Your task to perform on an android device: open a bookmark in the chrome app Image 0: 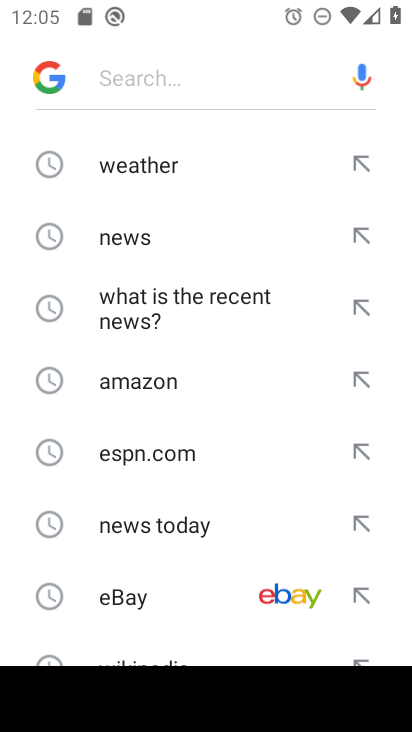
Step 0: press home button
Your task to perform on an android device: open a bookmark in the chrome app Image 1: 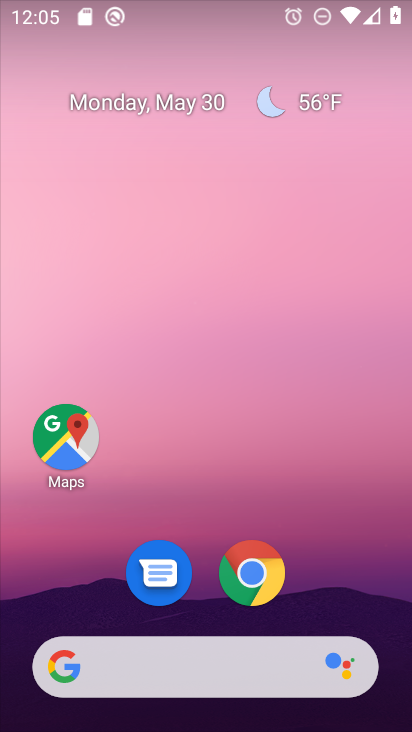
Step 1: drag from (357, 623) to (310, 3)
Your task to perform on an android device: open a bookmark in the chrome app Image 2: 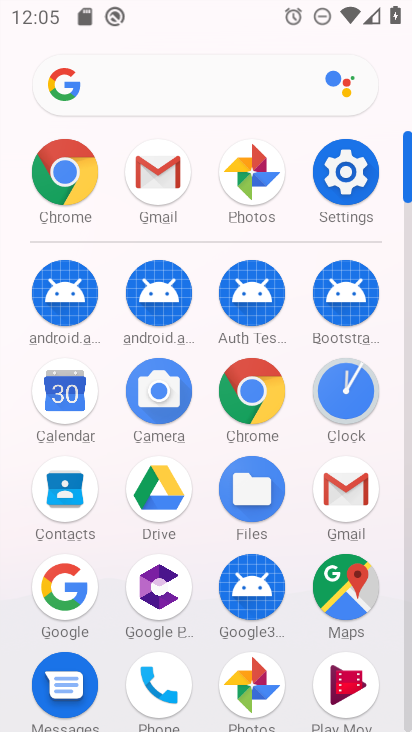
Step 2: click (259, 378)
Your task to perform on an android device: open a bookmark in the chrome app Image 3: 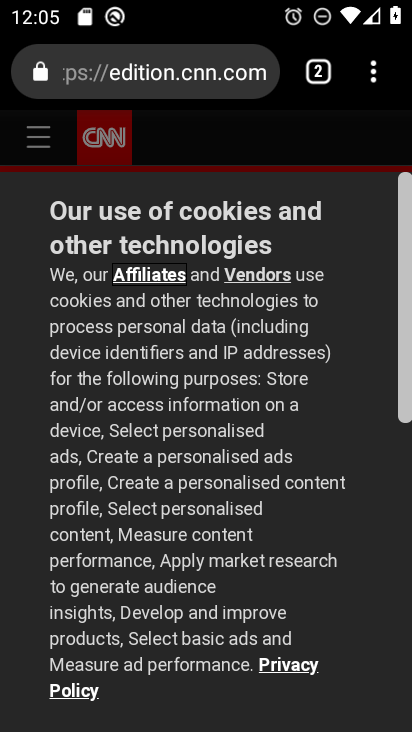
Step 3: task complete